Your task to perform on an android device: Show the shopping cart on costco.com. Image 0: 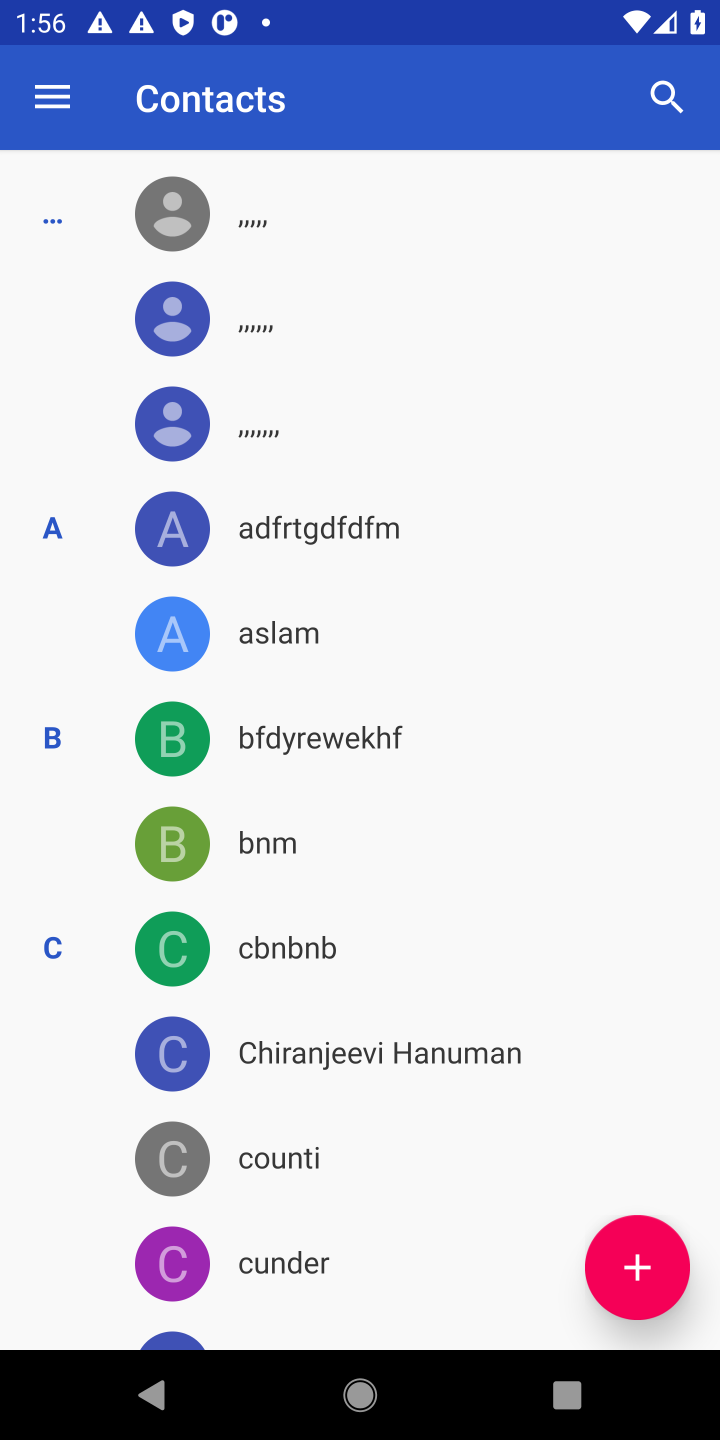
Step 0: press home button
Your task to perform on an android device: Show the shopping cart on costco.com. Image 1: 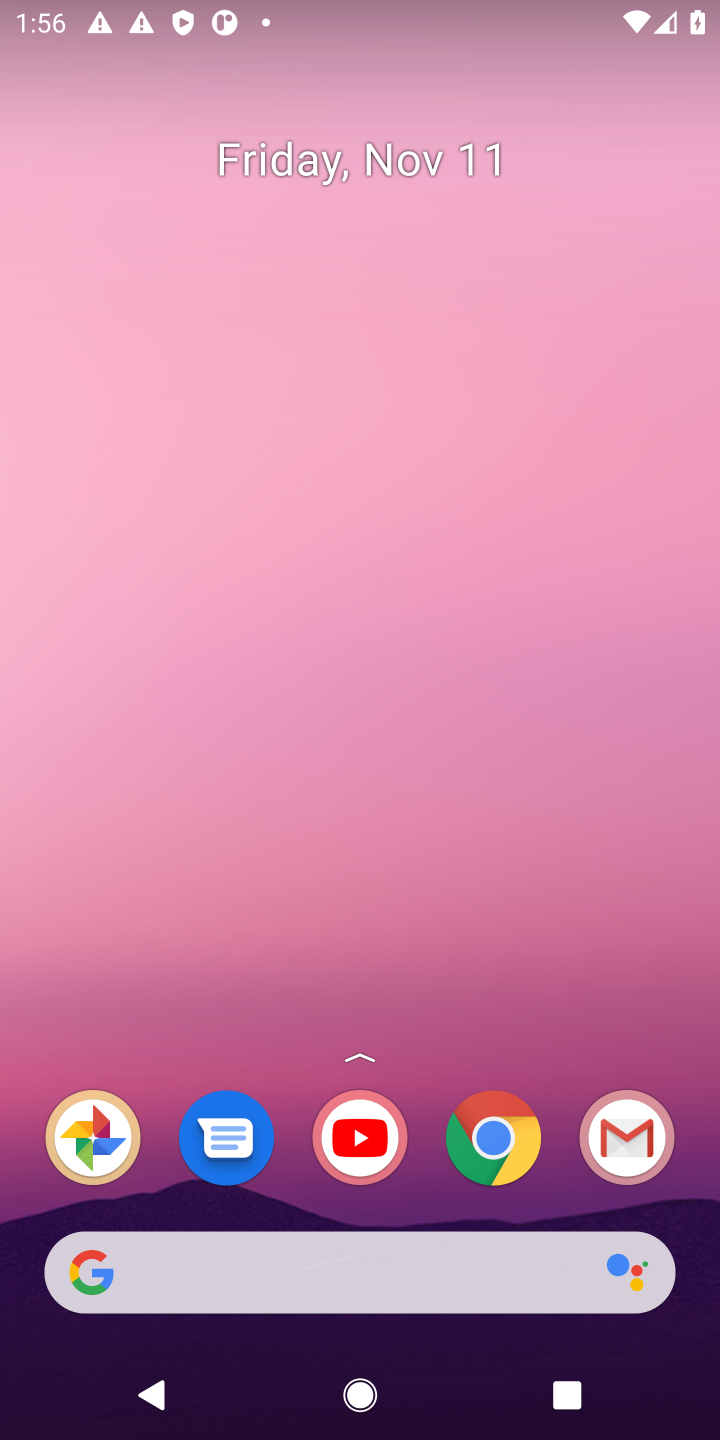
Step 1: click (496, 1144)
Your task to perform on an android device: Show the shopping cart on costco.com. Image 2: 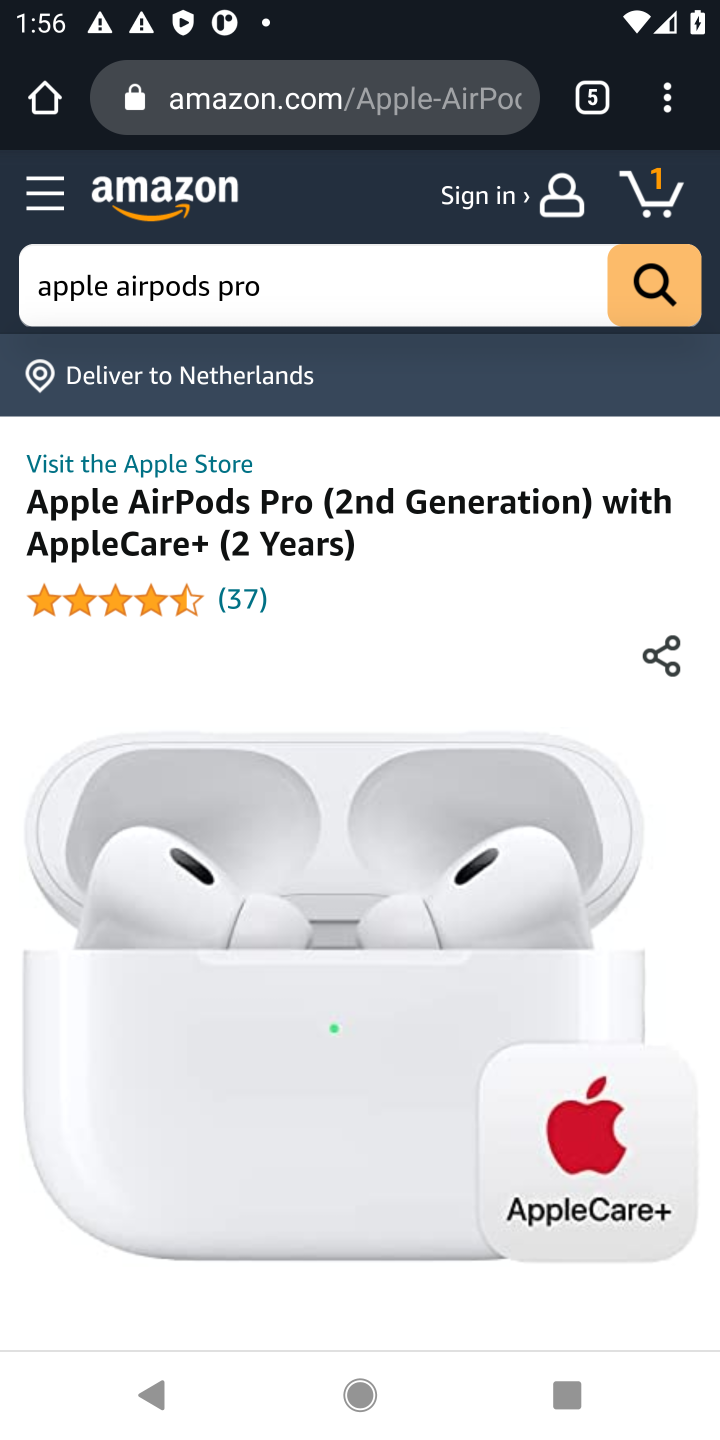
Step 2: click (603, 88)
Your task to perform on an android device: Show the shopping cart on costco.com. Image 3: 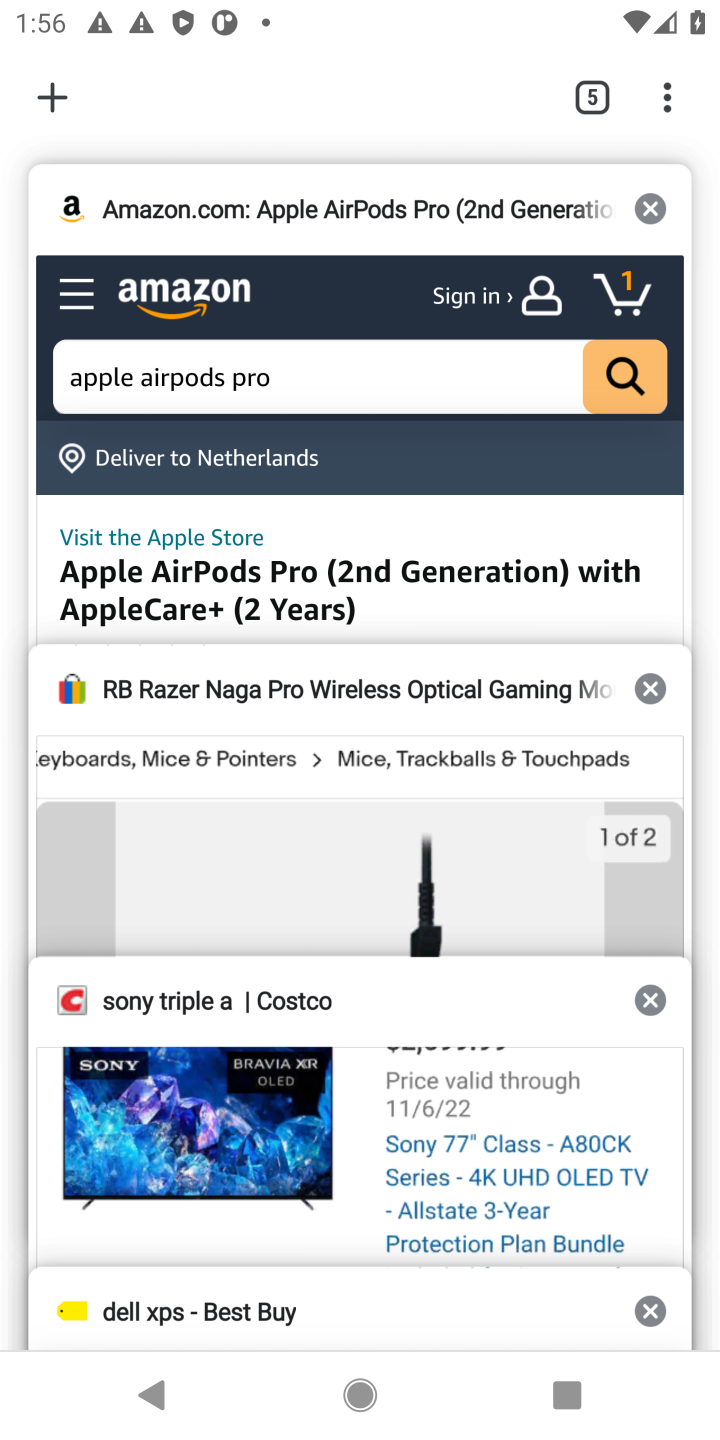
Step 3: click (249, 1067)
Your task to perform on an android device: Show the shopping cart on costco.com. Image 4: 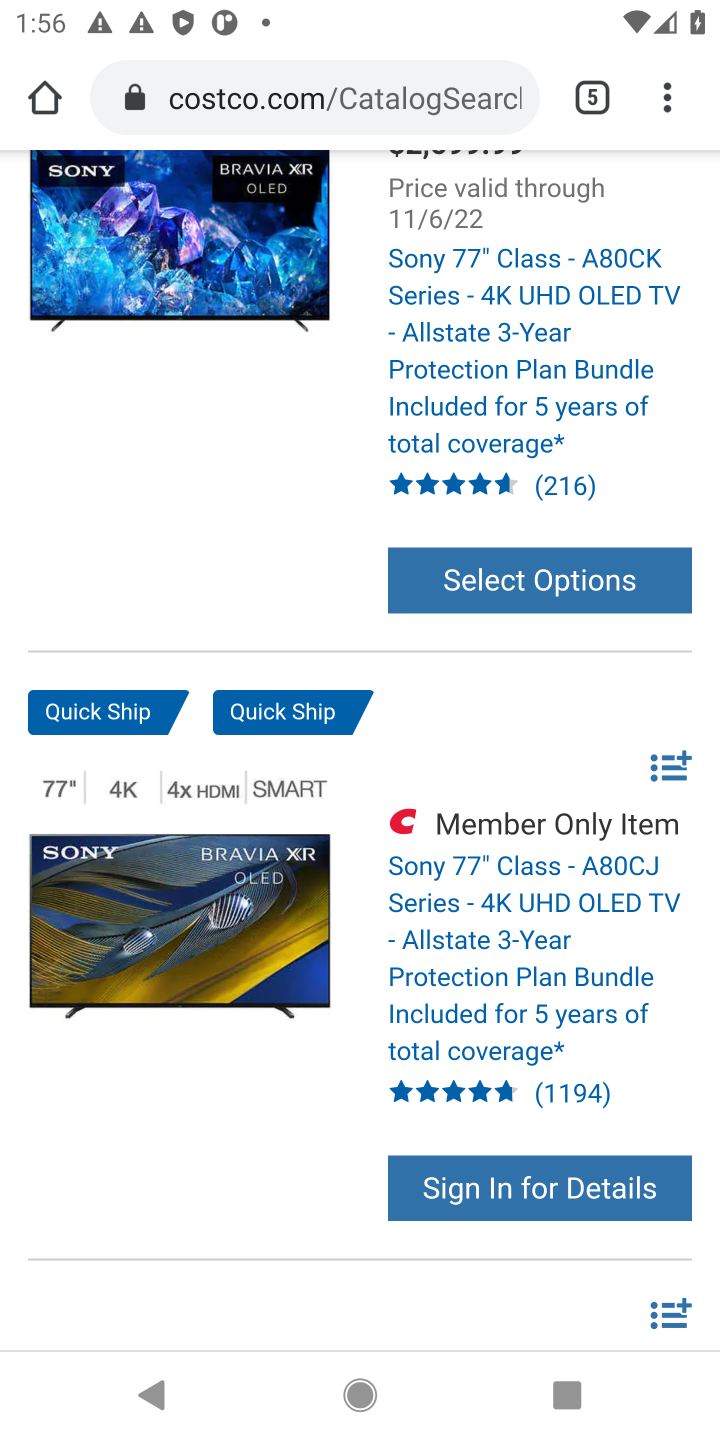
Step 4: drag from (225, 528) to (43, 1019)
Your task to perform on an android device: Show the shopping cart on costco.com. Image 5: 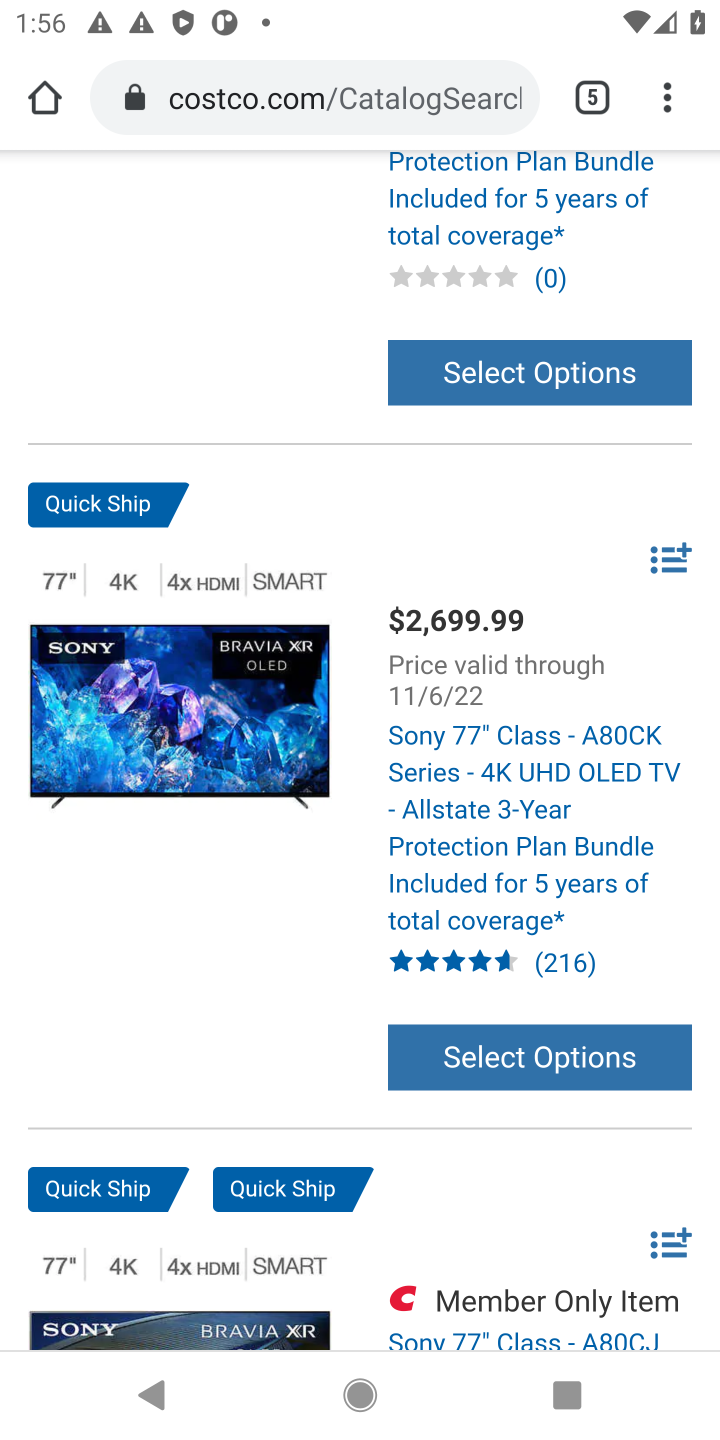
Step 5: drag from (307, 740) to (286, 1038)
Your task to perform on an android device: Show the shopping cart on costco.com. Image 6: 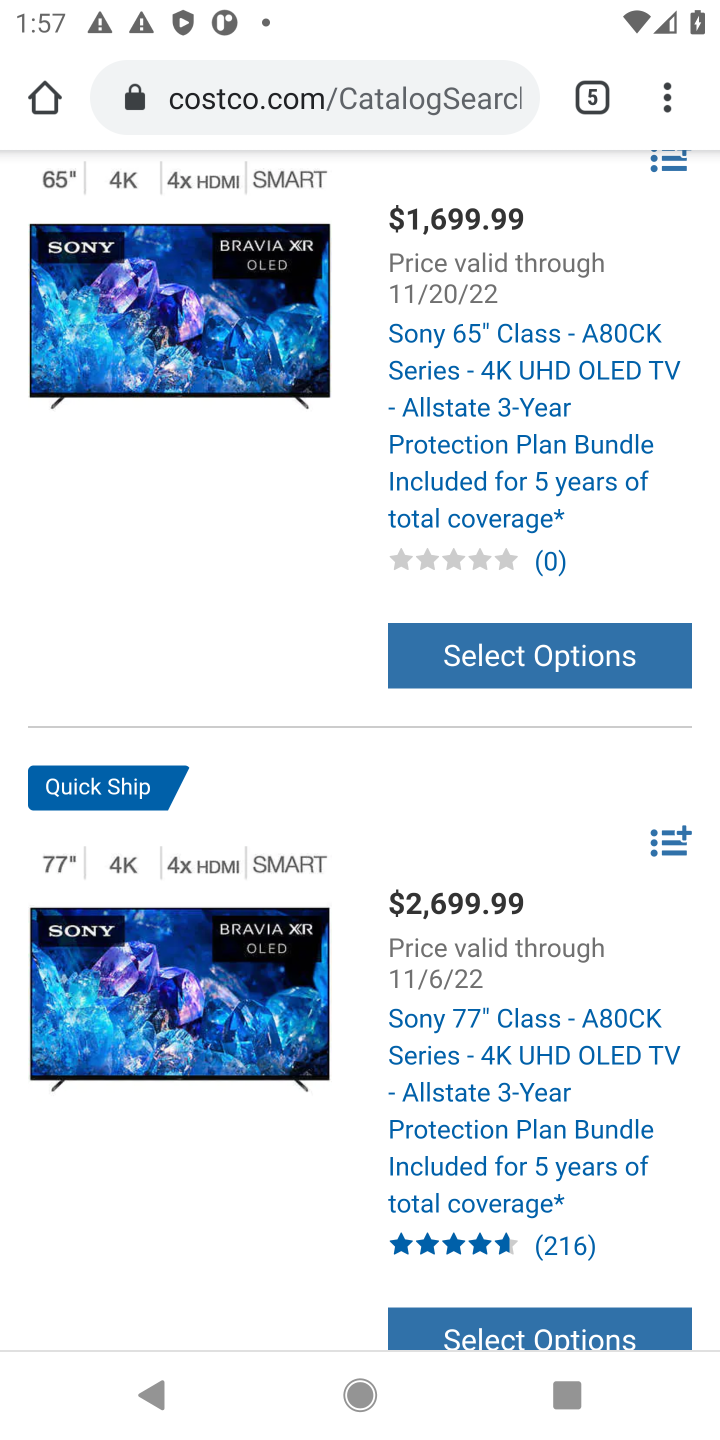
Step 6: drag from (584, 385) to (576, 1052)
Your task to perform on an android device: Show the shopping cart on costco.com. Image 7: 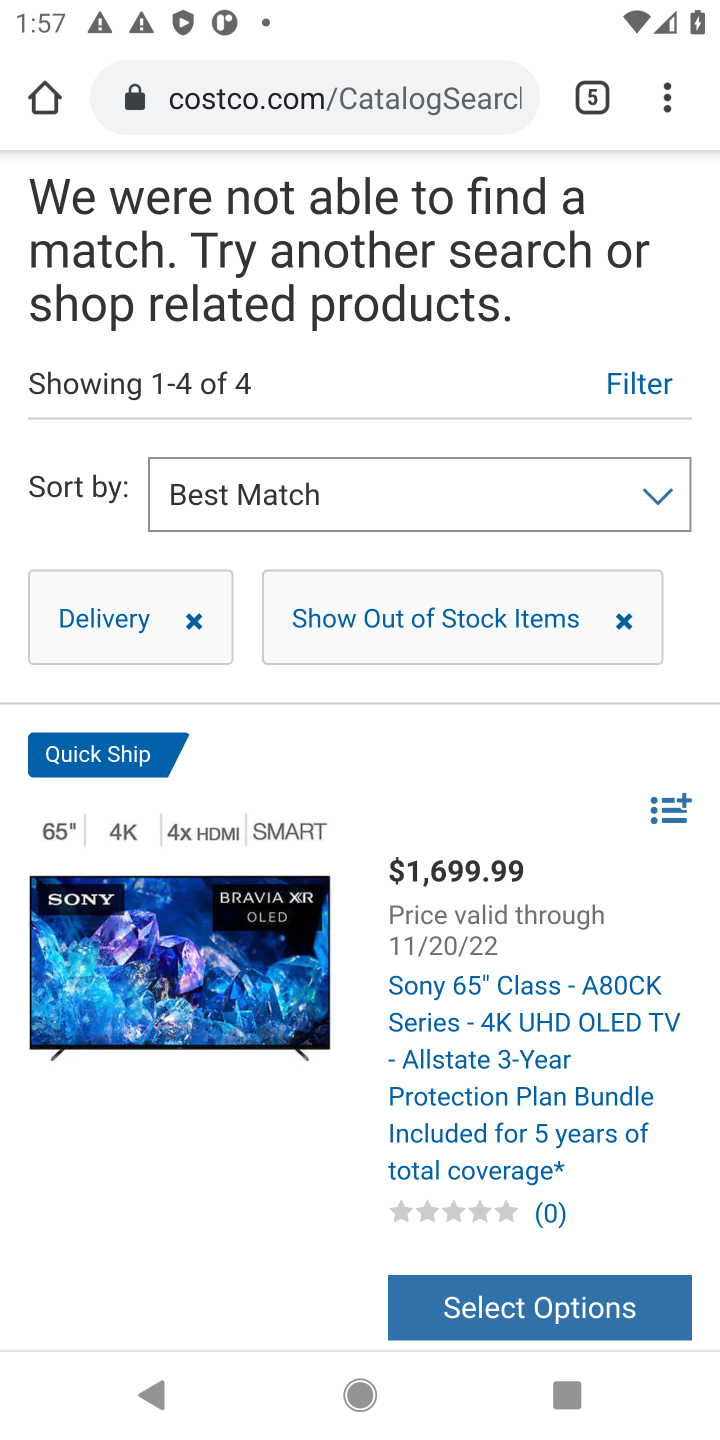
Step 7: drag from (628, 272) to (575, 1156)
Your task to perform on an android device: Show the shopping cart on costco.com. Image 8: 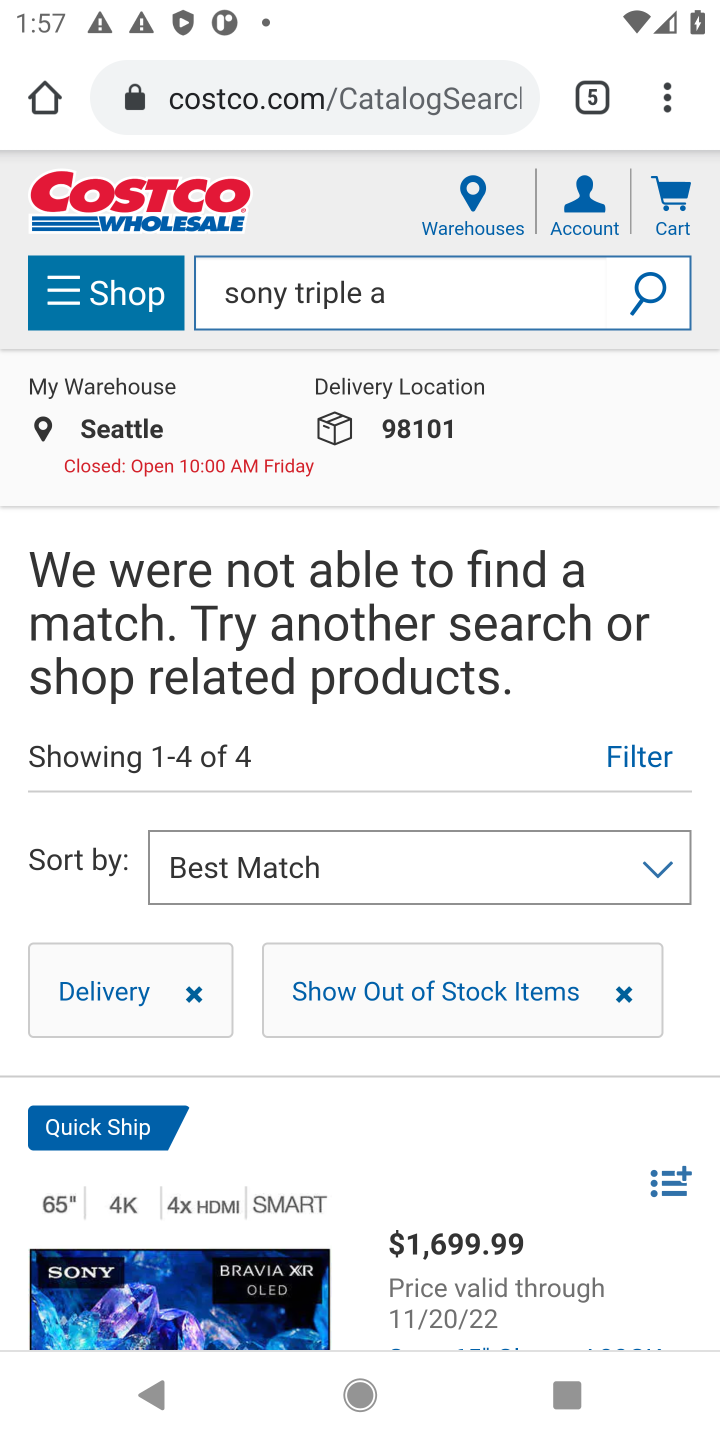
Step 8: click (668, 195)
Your task to perform on an android device: Show the shopping cart on costco.com. Image 9: 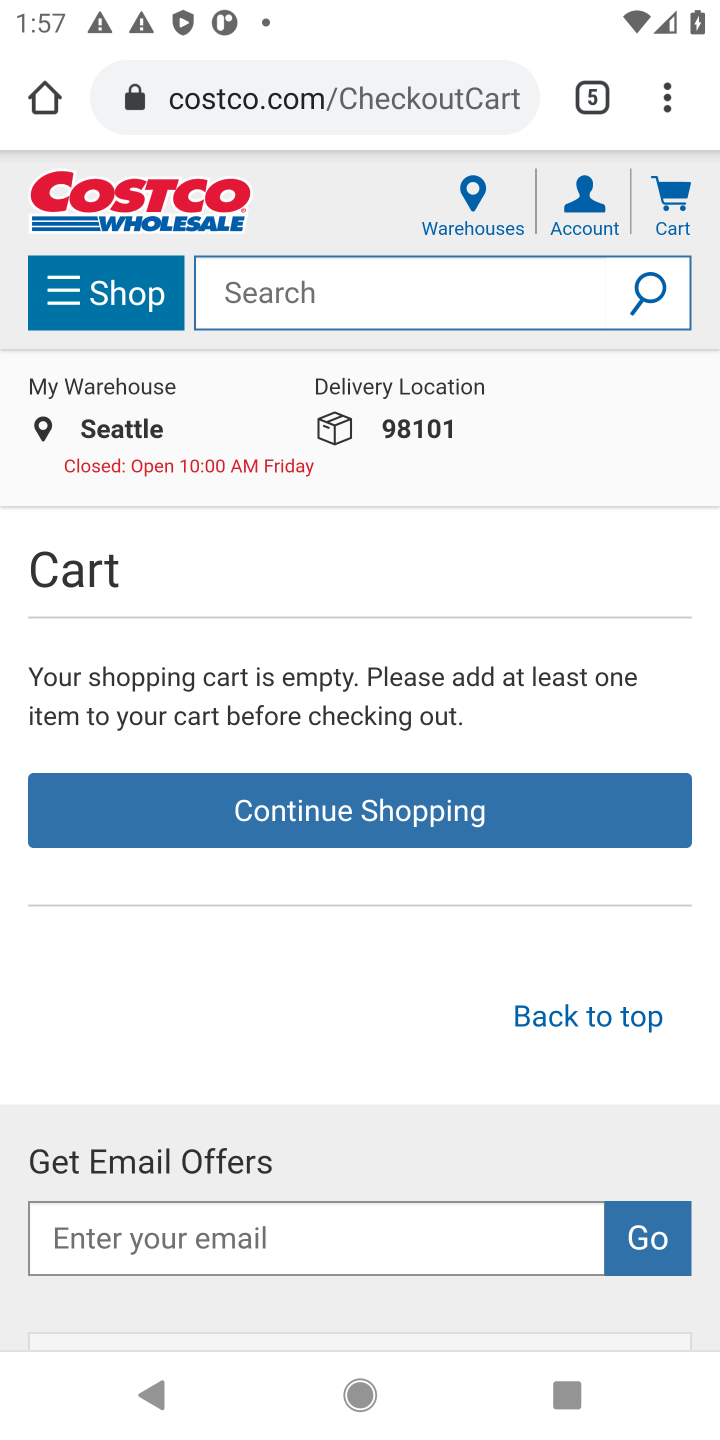
Step 9: task complete